Your task to perform on an android device: Go to Google Image 0: 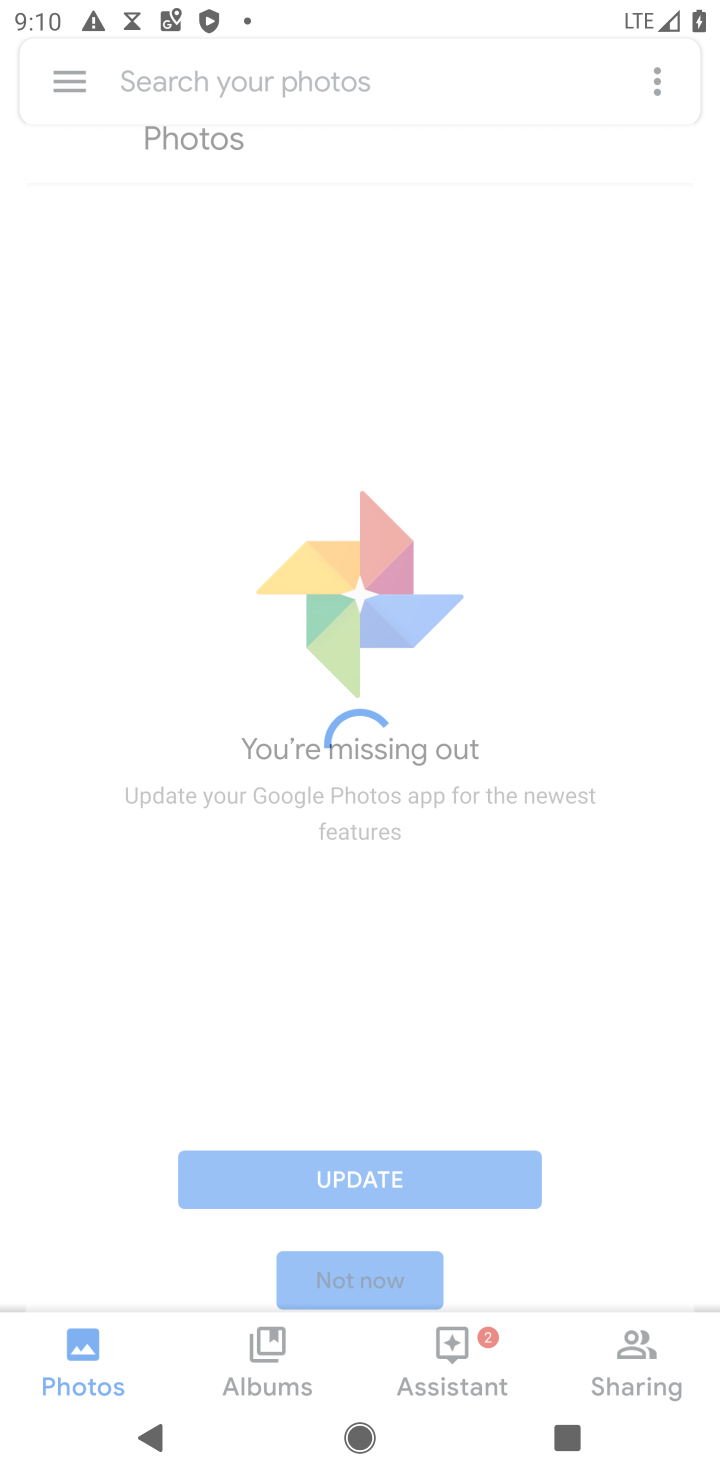
Step 0: press back button
Your task to perform on an android device: Go to Google Image 1: 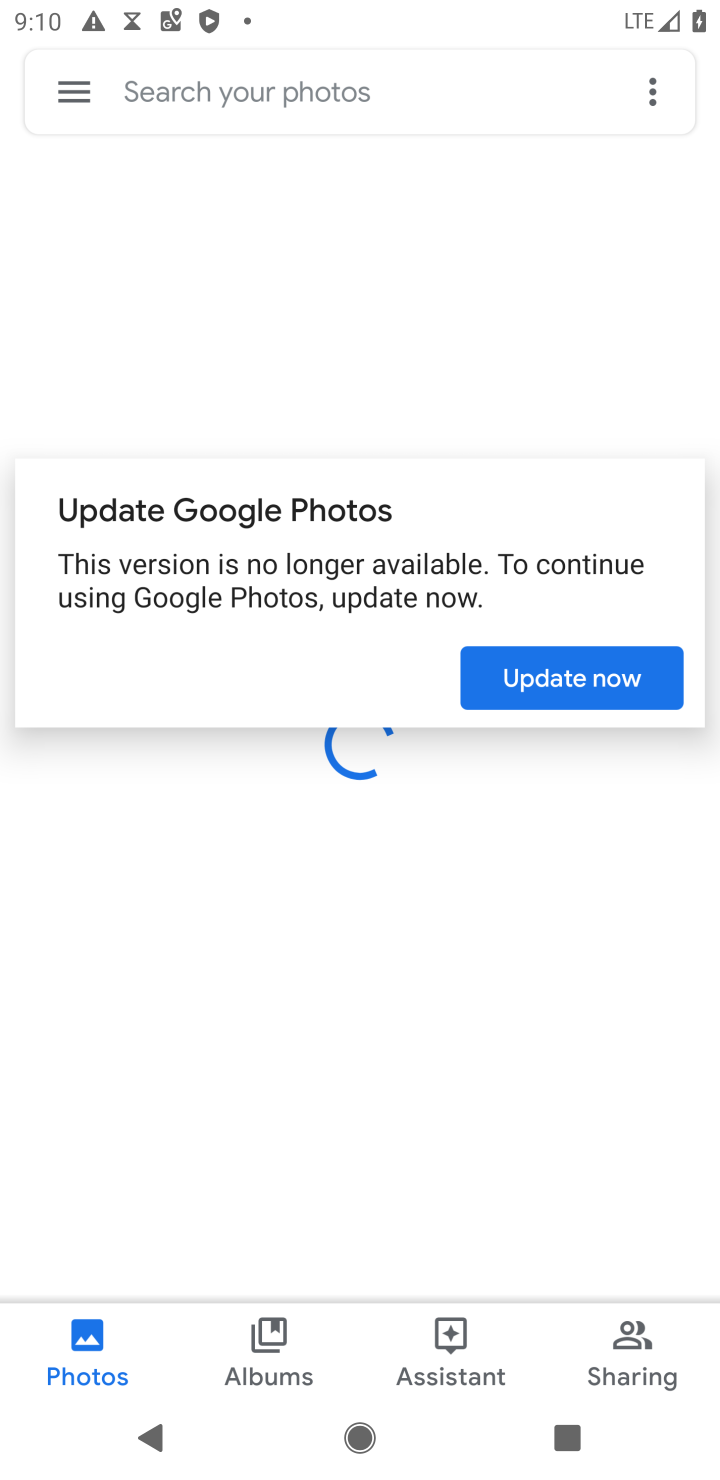
Step 1: press back button
Your task to perform on an android device: Go to Google Image 2: 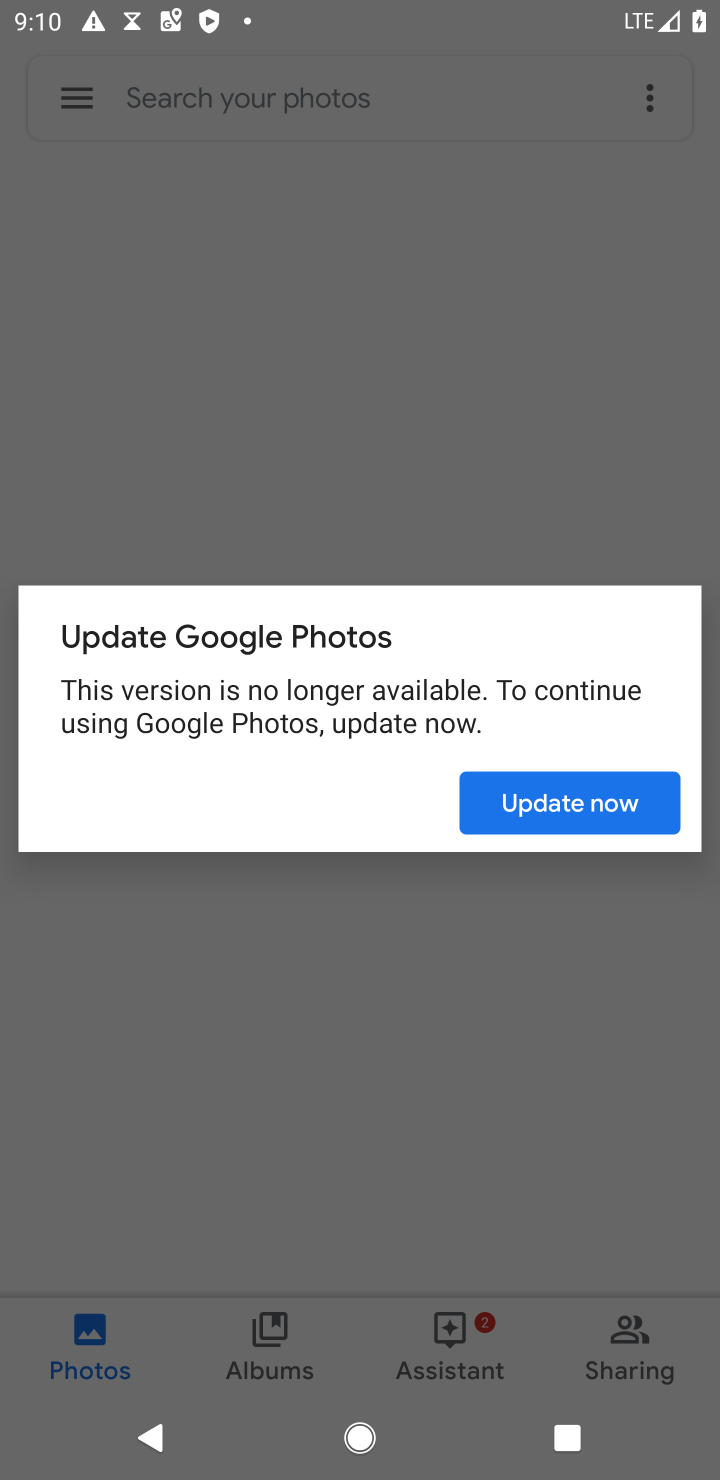
Step 2: press back button
Your task to perform on an android device: Go to Google Image 3: 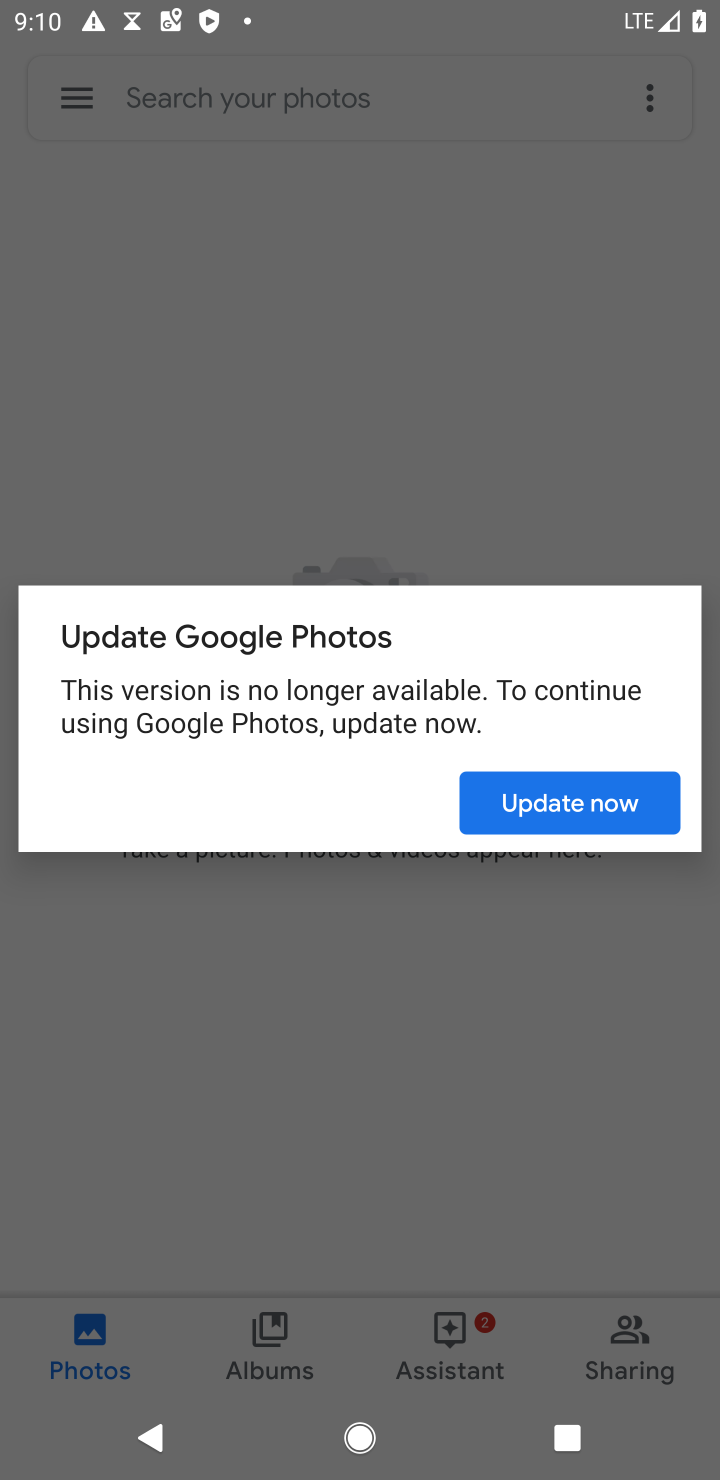
Step 3: press home button
Your task to perform on an android device: Go to Google Image 4: 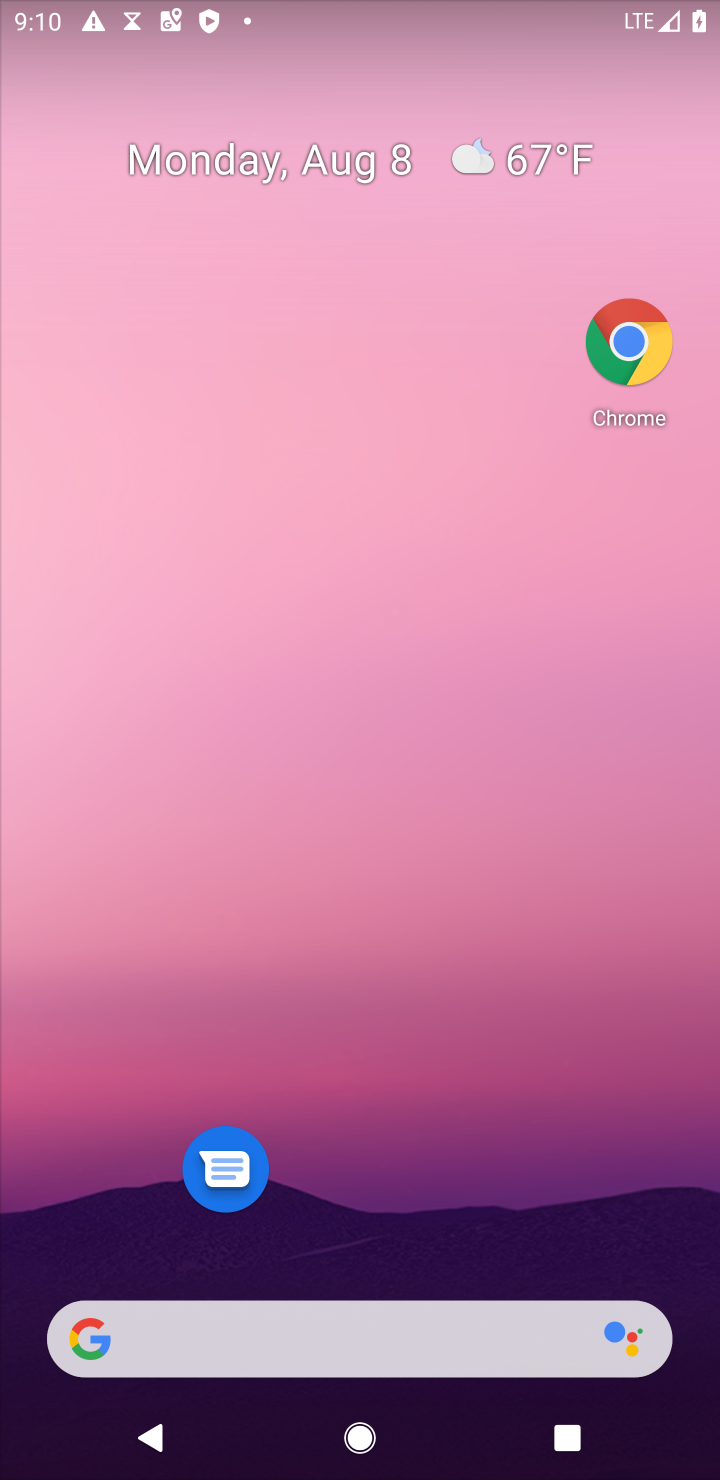
Step 4: drag from (323, 1014) to (466, 47)
Your task to perform on an android device: Go to Google Image 5: 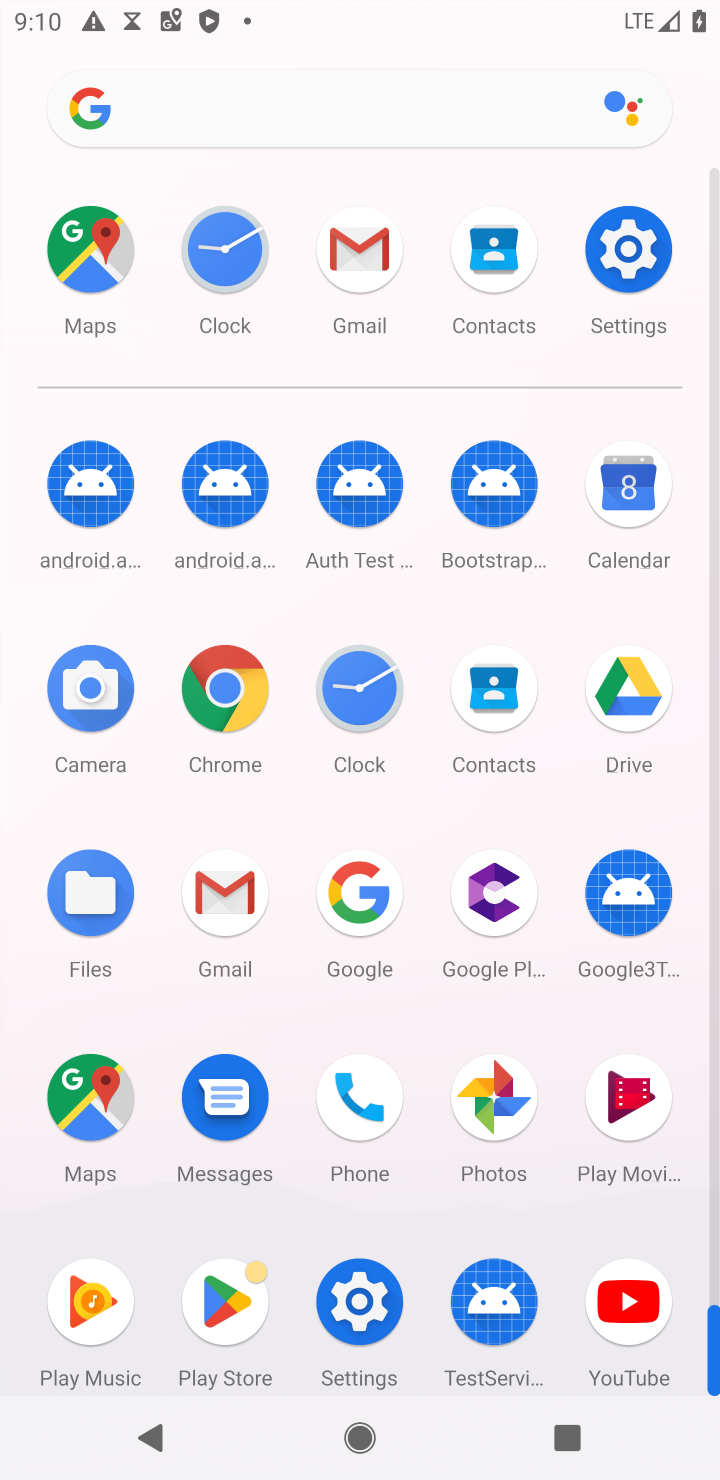
Step 5: click (362, 896)
Your task to perform on an android device: Go to Google Image 6: 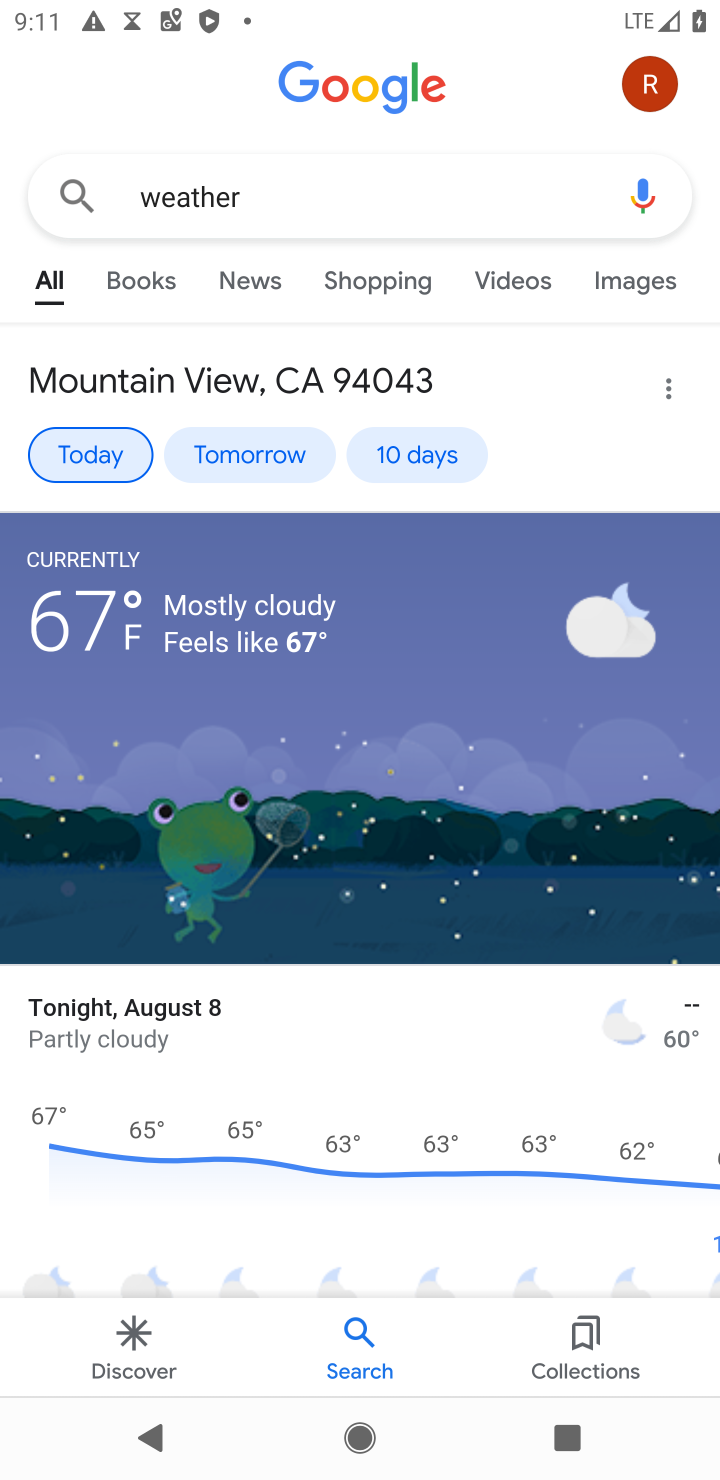
Step 6: task complete